Your task to perform on an android device: see tabs open on other devices in the chrome app Image 0: 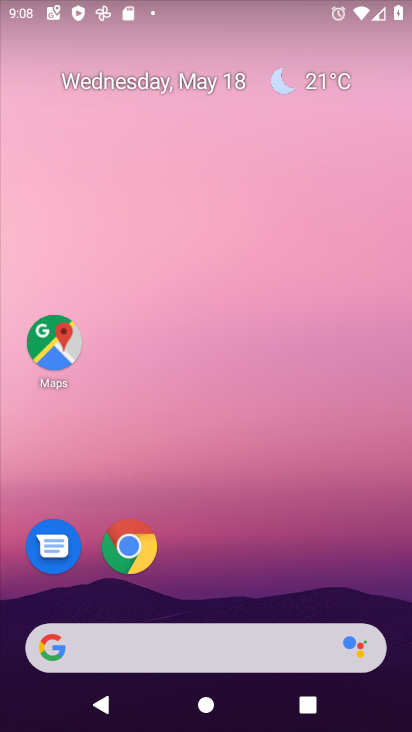
Step 0: drag from (316, 604) to (266, 150)
Your task to perform on an android device: see tabs open on other devices in the chrome app Image 1: 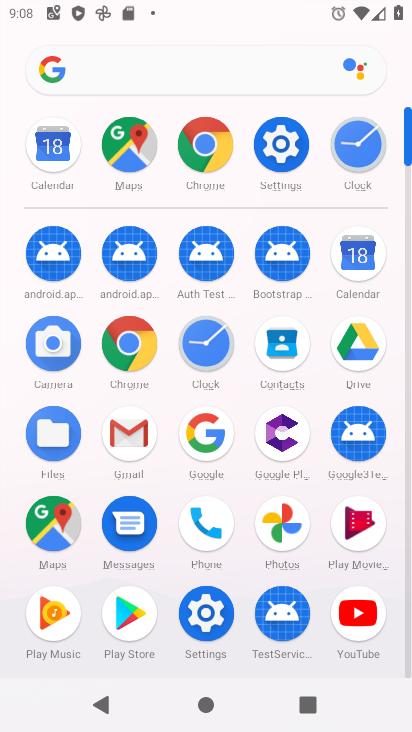
Step 1: click (130, 348)
Your task to perform on an android device: see tabs open on other devices in the chrome app Image 2: 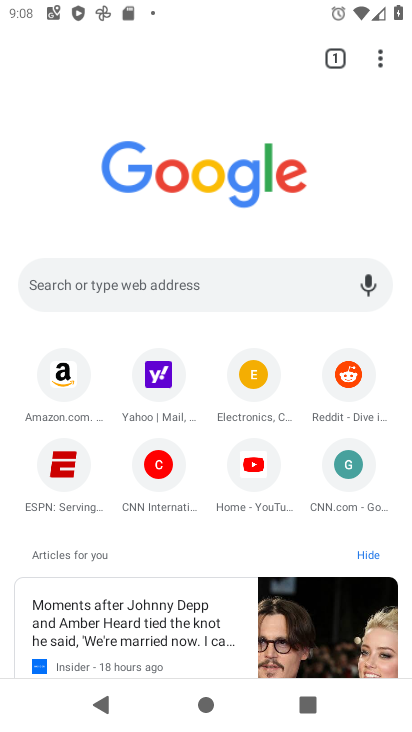
Step 2: task complete